Your task to perform on an android device: Search for macbook pro on ebay.com, select the first entry, add it to the cart, then select checkout. Image 0: 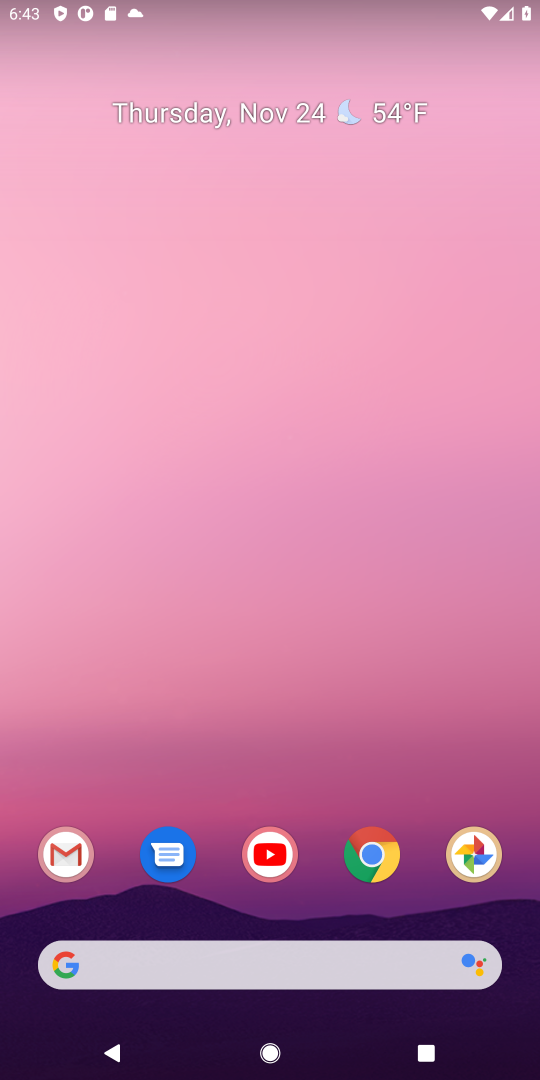
Step 0: click (370, 862)
Your task to perform on an android device: Search for macbook pro on ebay.com, select the first entry, add it to the cart, then select checkout. Image 1: 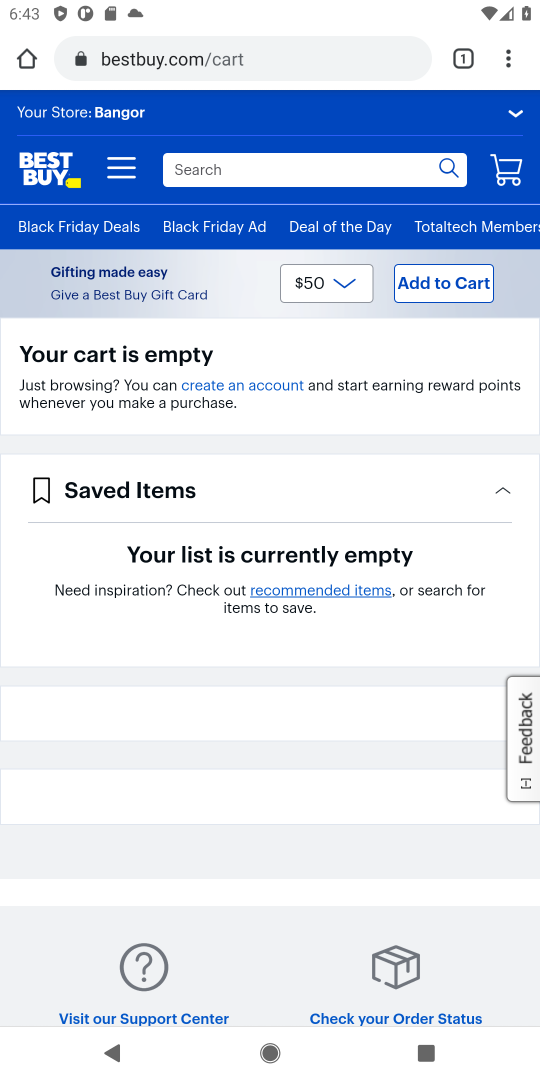
Step 1: click (198, 65)
Your task to perform on an android device: Search for macbook pro on ebay.com, select the first entry, add it to the cart, then select checkout. Image 2: 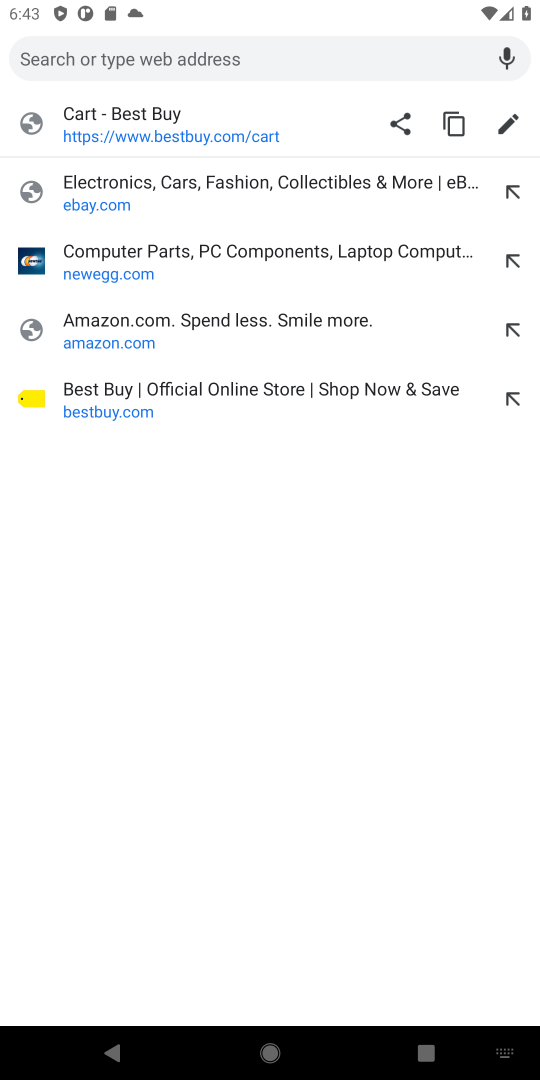
Step 2: click (90, 201)
Your task to perform on an android device: Search for macbook pro on ebay.com, select the first entry, add it to the cart, then select checkout. Image 3: 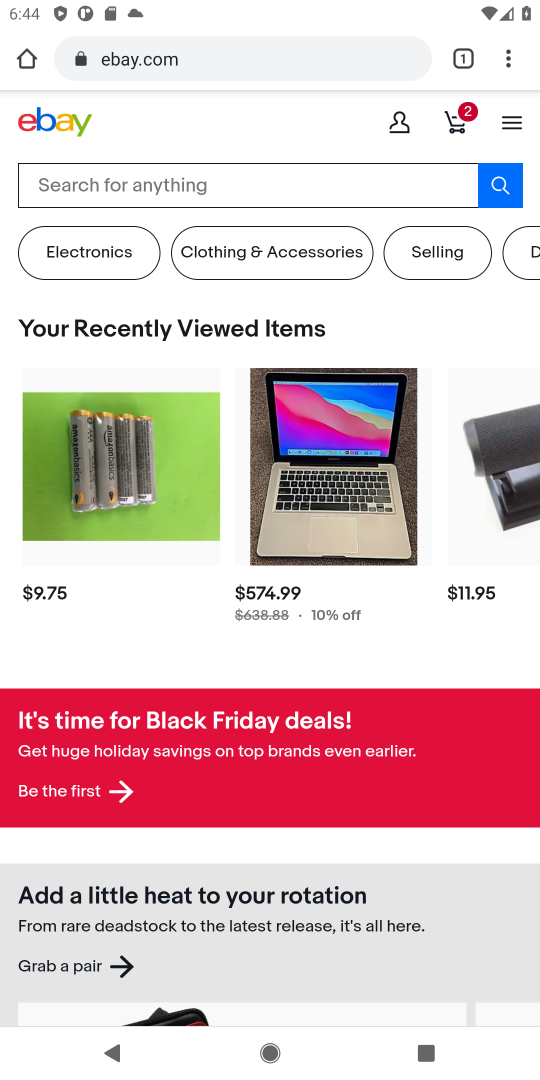
Step 3: click (105, 180)
Your task to perform on an android device: Search for macbook pro on ebay.com, select the first entry, add it to the cart, then select checkout. Image 4: 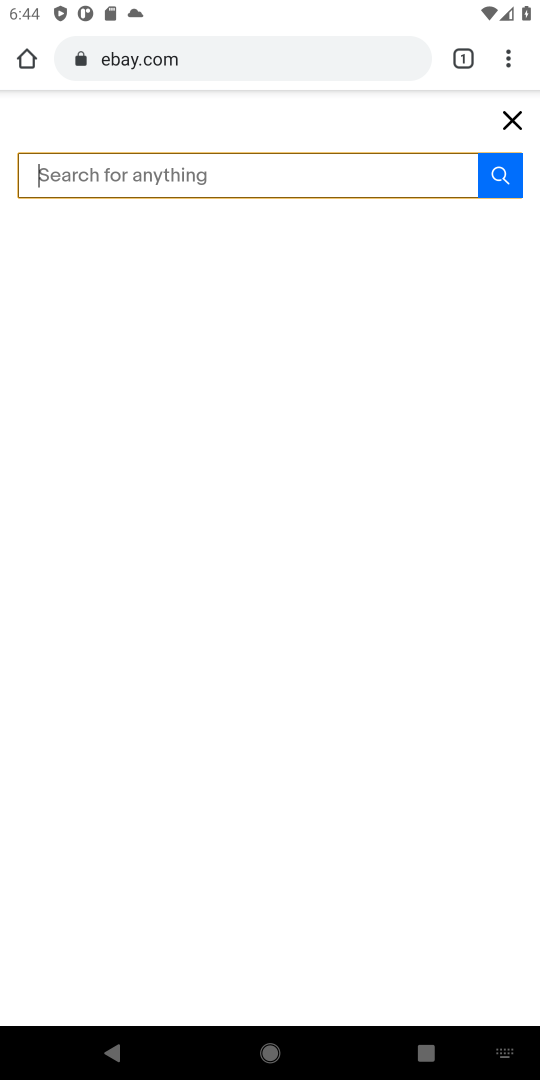
Step 4: type "macbook pro"
Your task to perform on an android device: Search for macbook pro on ebay.com, select the first entry, add it to the cart, then select checkout. Image 5: 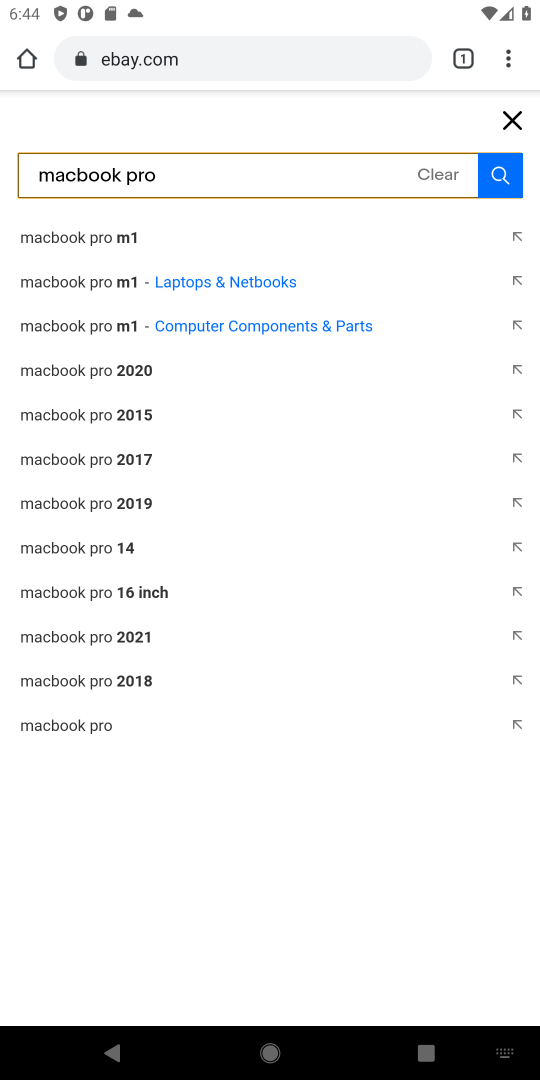
Step 5: click (75, 733)
Your task to perform on an android device: Search for macbook pro on ebay.com, select the first entry, add it to the cart, then select checkout. Image 6: 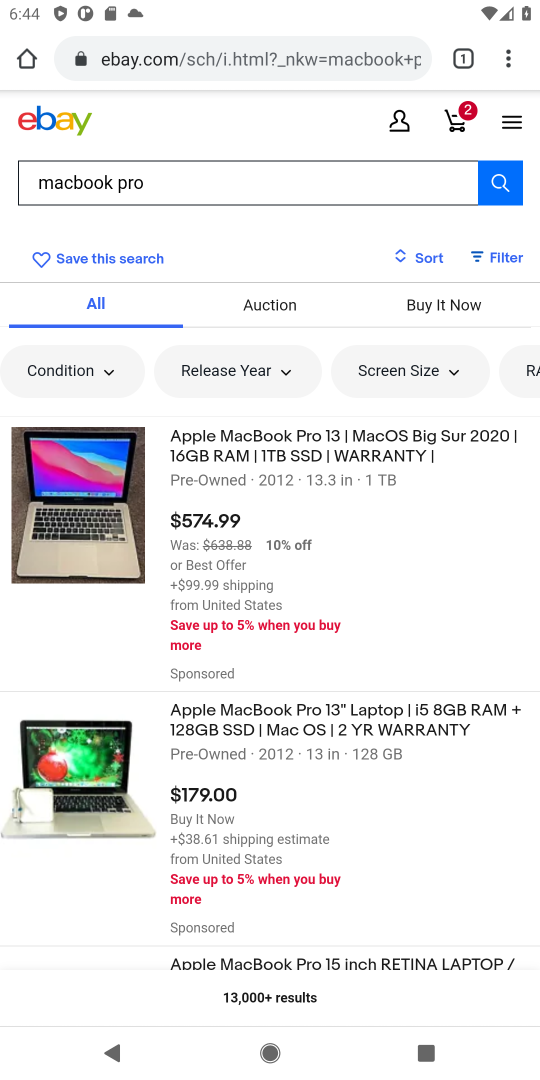
Step 6: click (73, 524)
Your task to perform on an android device: Search for macbook pro on ebay.com, select the first entry, add it to the cart, then select checkout. Image 7: 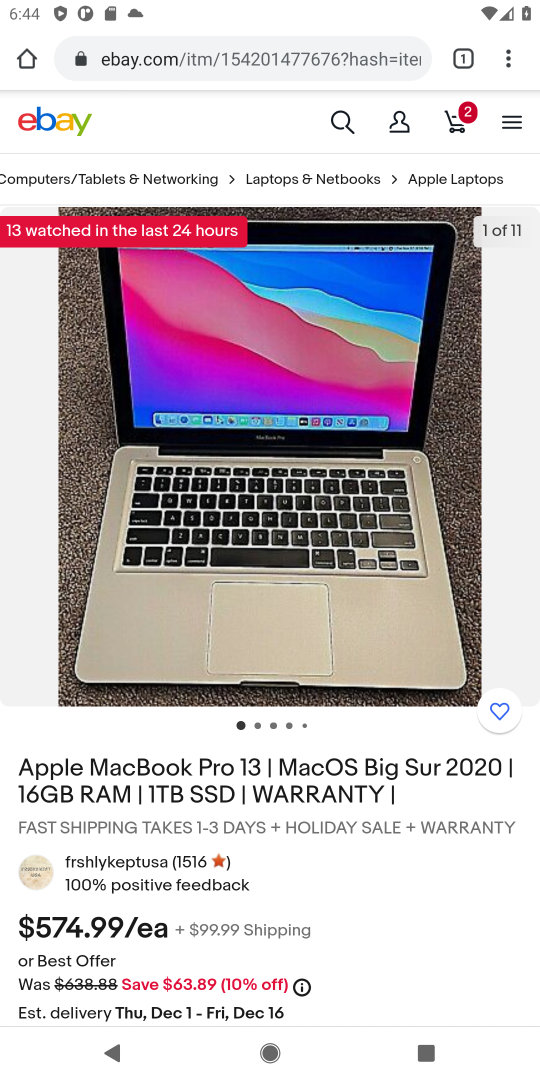
Step 7: drag from (313, 798) to (280, 479)
Your task to perform on an android device: Search for macbook pro on ebay.com, select the first entry, add it to the cart, then select checkout. Image 8: 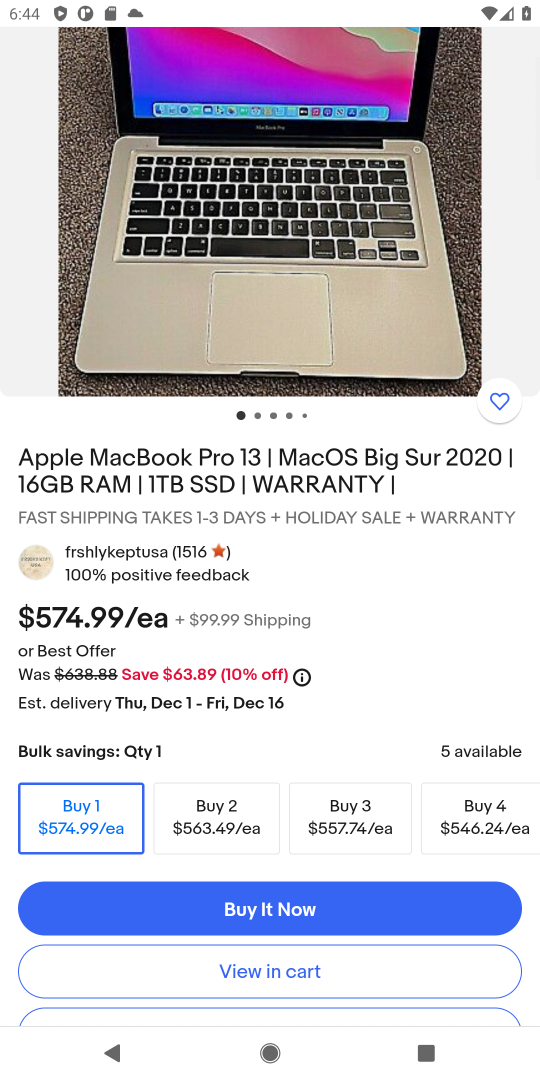
Step 8: drag from (267, 728) to (270, 518)
Your task to perform on an android device: Search for macbook pro on ebay.com, select the first entry, add it to the cart, then select checkout. Image 9: 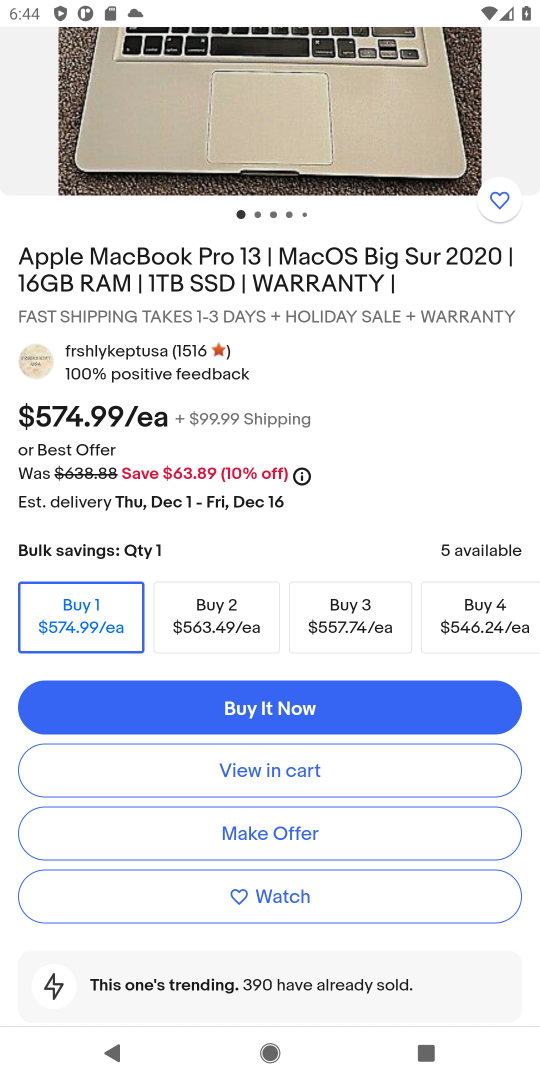
Step 9: click (247, 770)
Your task to perform on an android device: Search for macbook pro on ebay.com, select the first entry, add it to the cart, then select checkout. Image 10: 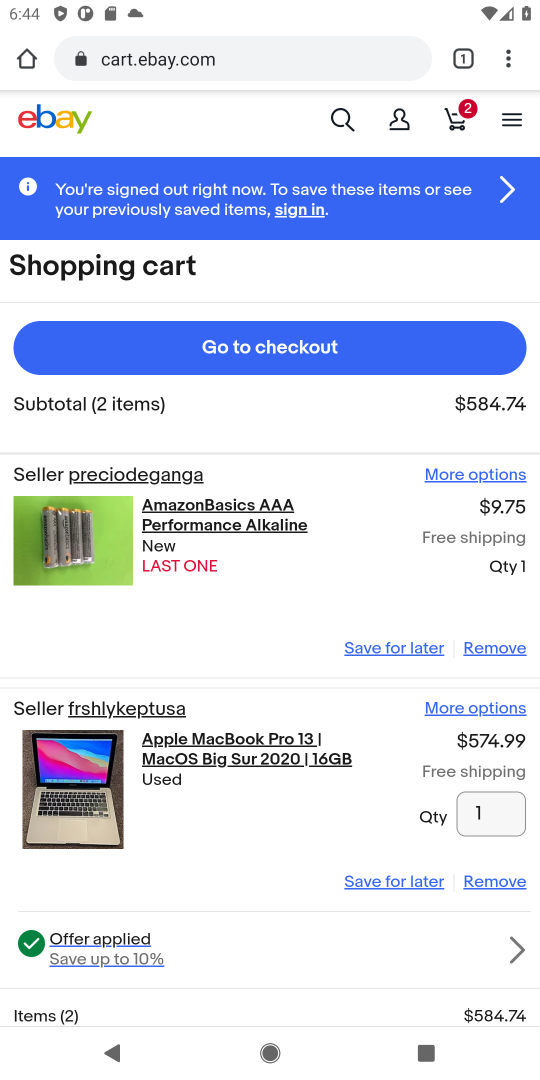
Step 10: click (251, 354)
Your task to perform on an android device: Search for macbook pro on ebay.com, select the first entry, add it to the cart, then select checkout. Image 11: 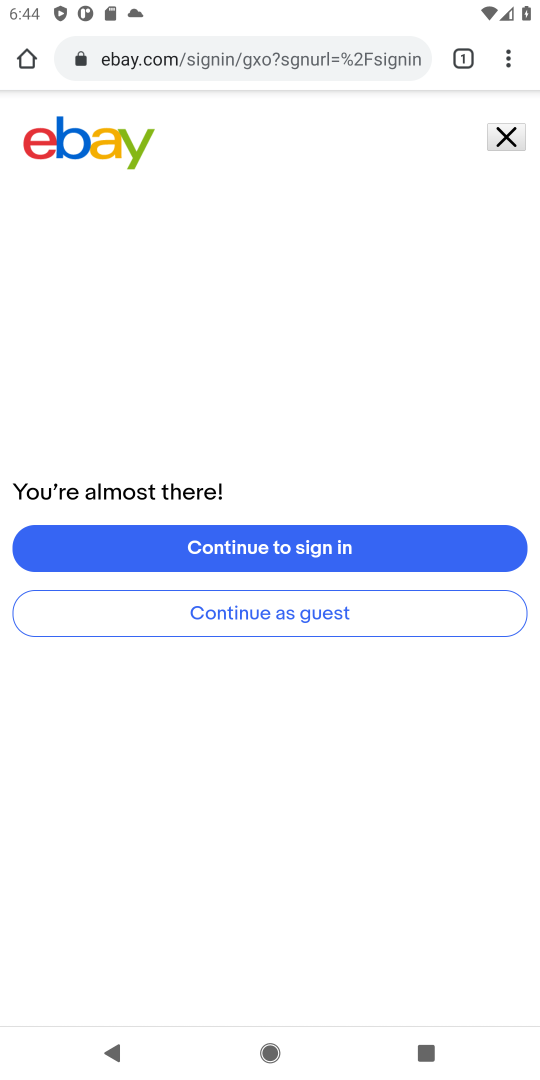
Step 11: task complete